Your task to perform on an android device: Open ESPN.com Image 0: 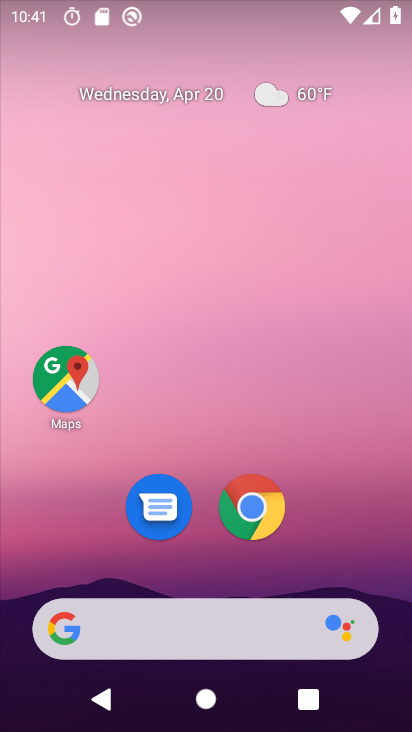
Step 0: click (259, 505)
Your task to perform on an android device: Open ESPN.com Image 1: 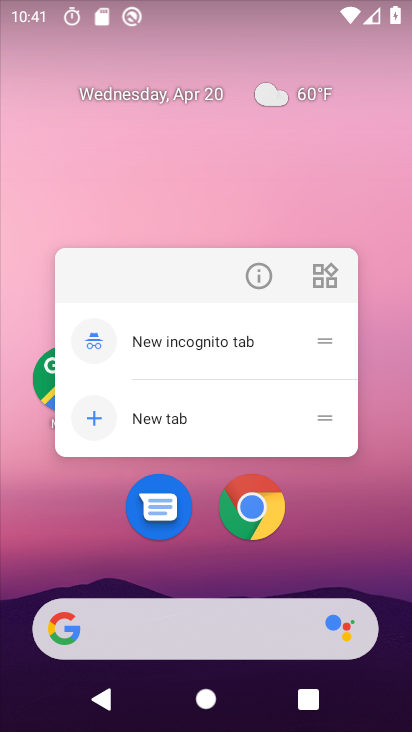
Step 1: click (257, 274)
Your task to perform on an android device: Open ESPN.com Image 2: 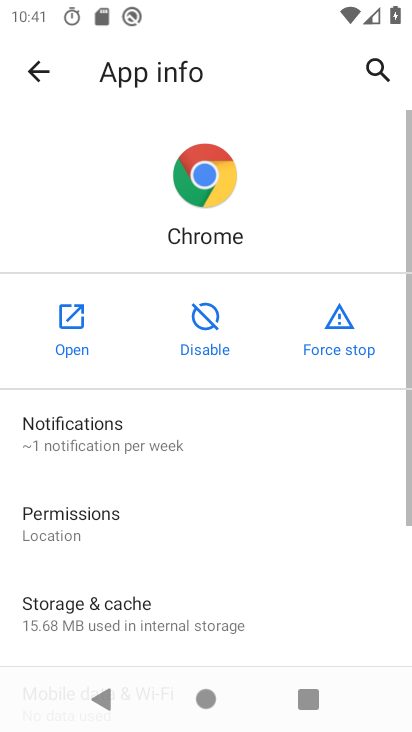
Step 2: click (72, 343)
Your task to perform on an android device: Open ESPN.com Image 3: 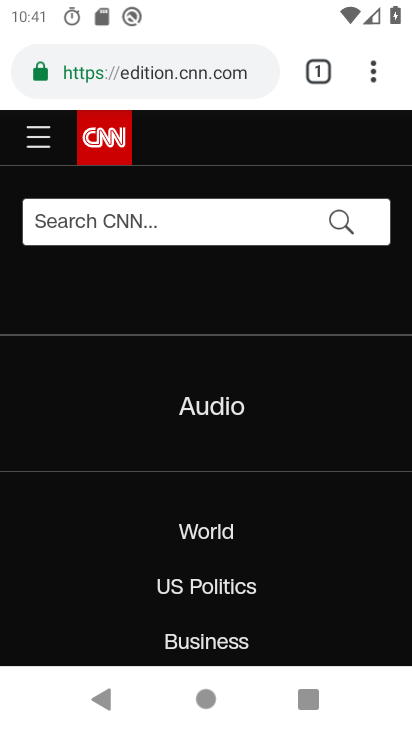
Step 3: click (237, 70)
Your task to perform on an android device: Open ESPN.com Image 4: 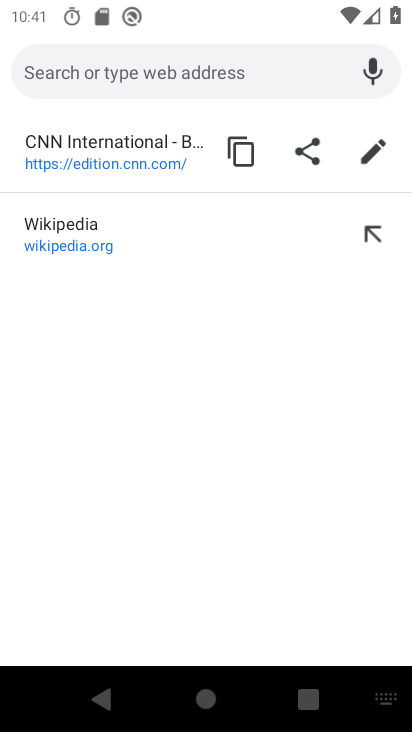
Step 4: type "ESPN.com"
Your task to perform on an android device: Open ESPN.com Image 5: 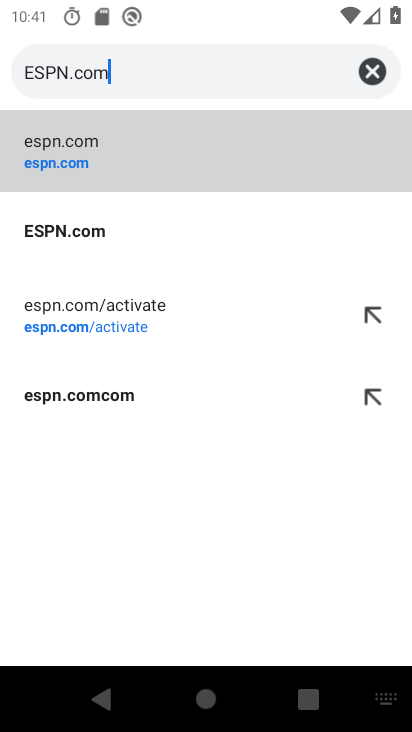
Step 5: click (110, 160)
Your task to perform on an android device: Open ESPN.com Image 6: 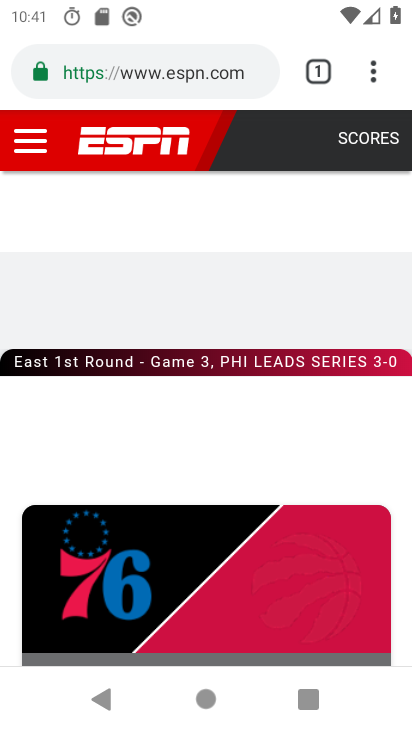
Step 6: task complete